Your task to perform on an android device: open the mobile data screen to see how much data has been used Image 0: 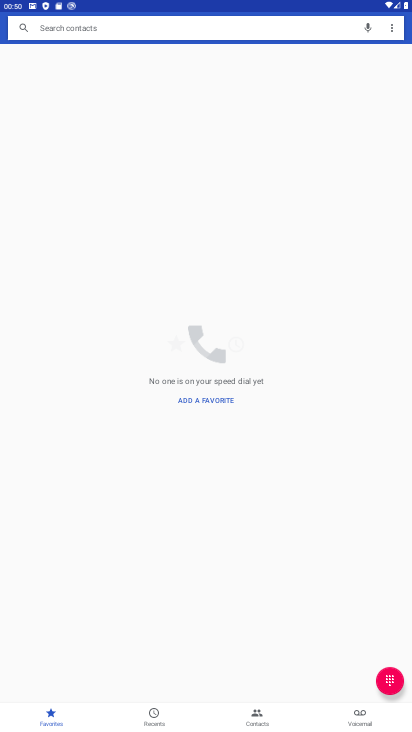
Step 0: press home button
Your task to perform on an android device: open the mobile data screen to see how much data has been used Image 1: 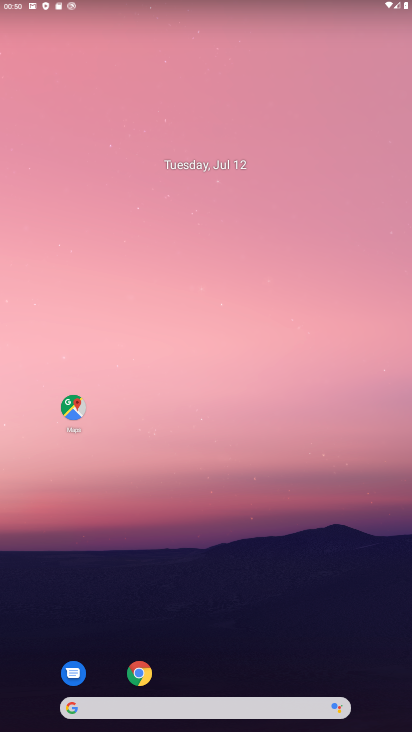
Step 1: press home button
Your task to perform on an android device: open the mobile data screen to see how much data has been used Image 2: 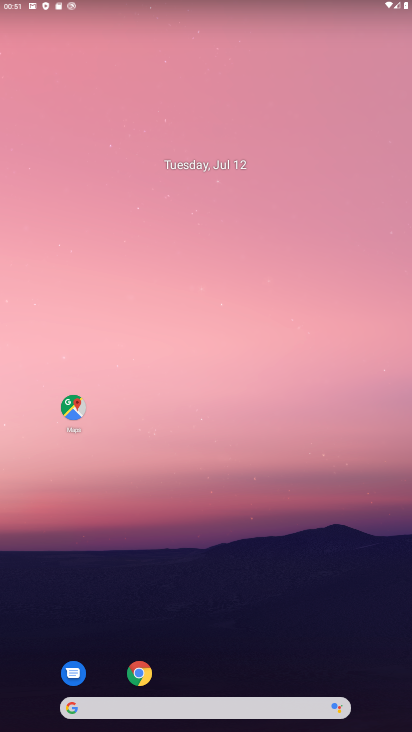
Step 2: drag from (249, 631) to (314, 20)
Your task to perform on an android device: open the mobile data screen to see how much data has been used Image 3: 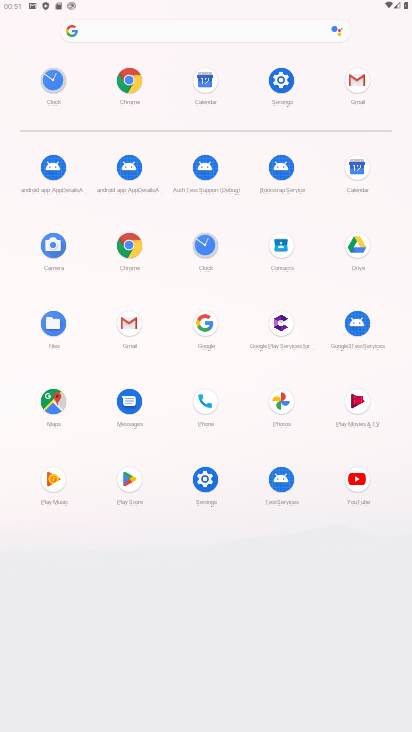
Step 3: click (201, 644)
Your task to perform on an android device: open the mobile data screen to see how much data has been used Image 4: 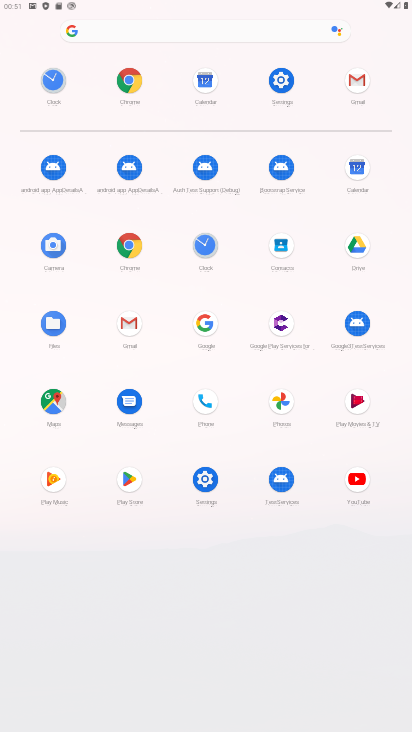
Step 4: click (287, 92)
Your task to perform on an android device: open the mobile data screen to see how much data has been used Image 5: 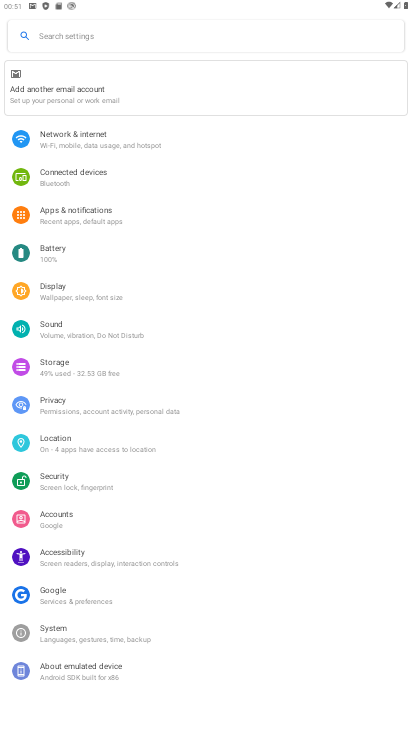
Step 5: click (90, 137)
Your task to perform on an android device: open the mobile data screen to see how much data has been used Image 6: 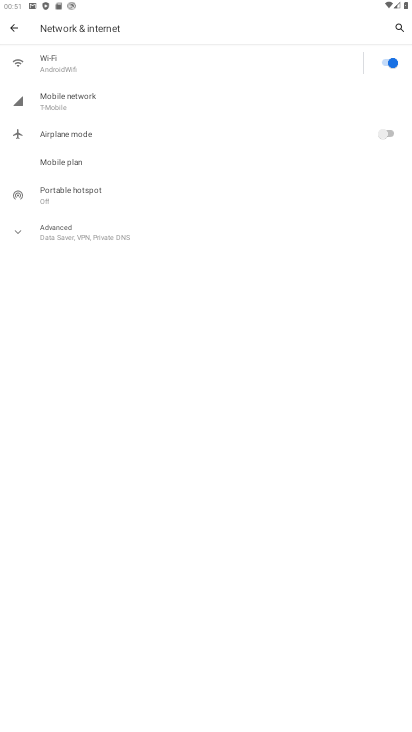
Step 6: click (70, 100)
Your task to perform on an android device: open the mobile data screen to see how much data has been used Image 7: 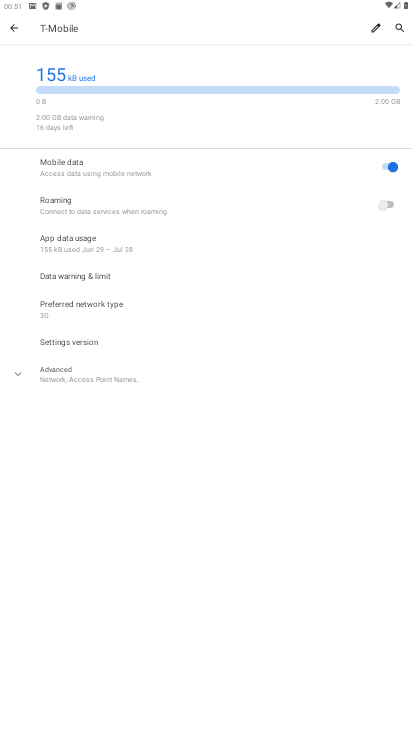
Step 7: task complete